Your task to perform on an android device: install app "Etsy: Buy & Sell Unique Items" Image 0: 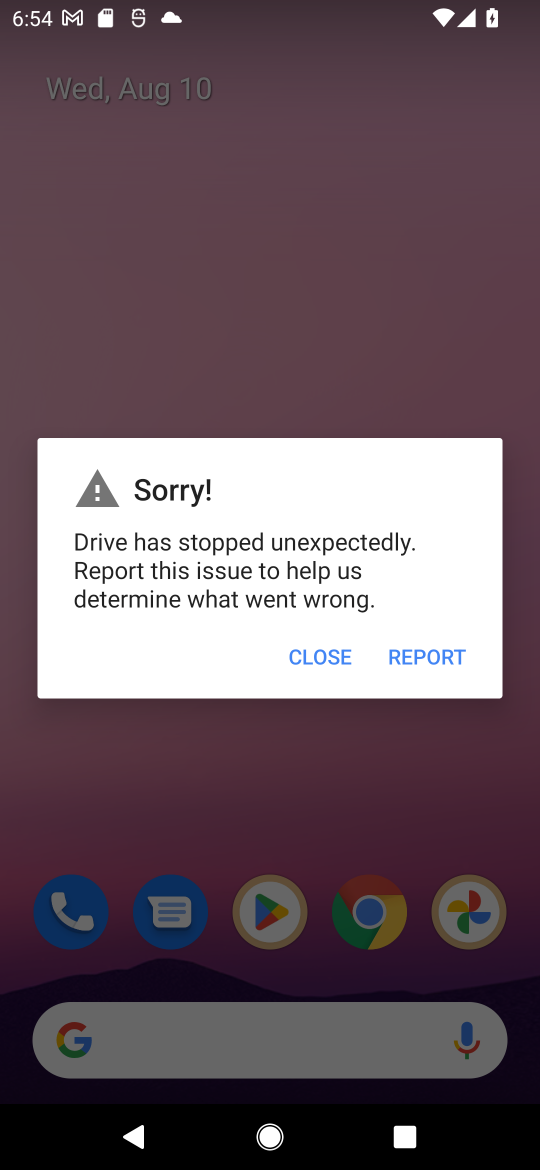
Step 0: press home button
Your task to perform on an android device: install app "Etsy: Buy & Sell Unique Items" Image 1: 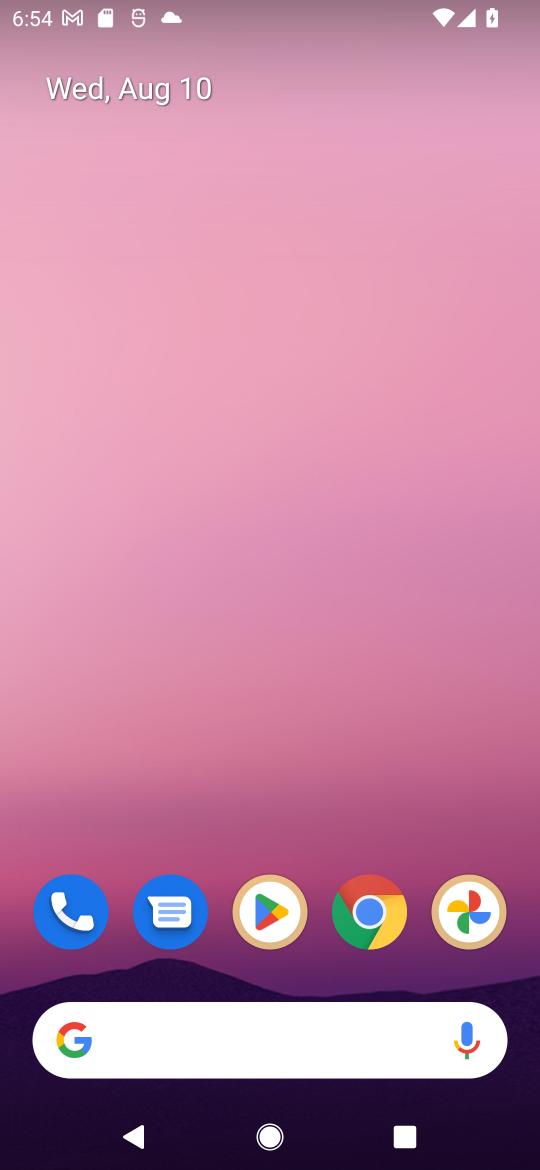
Step 1: drag from (505, 882) to (283, 53)
Your task to perform on an android device: install app "Etsy: Buy & Sell Unique Items" Image 2: 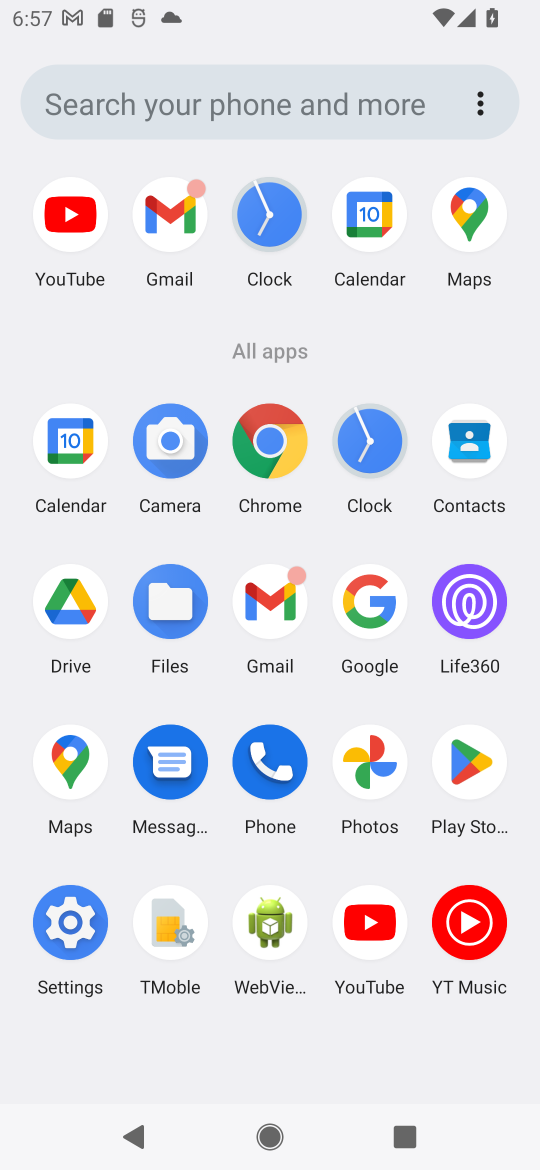
Step 2: click (466, 761)
Your task to perform on an android device: install app "Etsy: Buy & Sell Unique Items" Image 3: 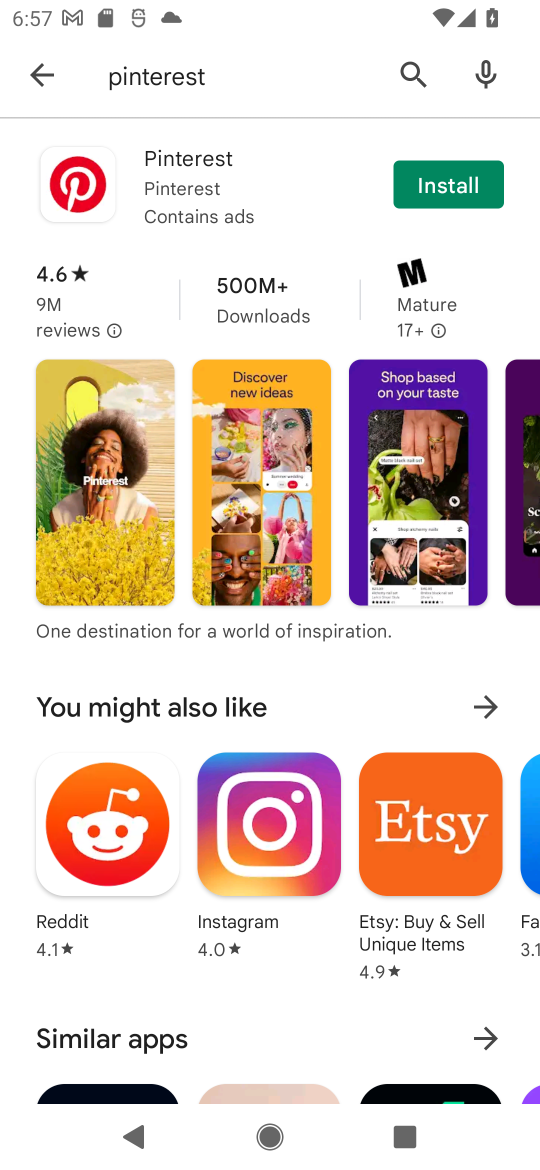
Step 3: press back button
Your task to perform on an android device: install app "Etsy: Buy & Sell Unique Items" Image 4: 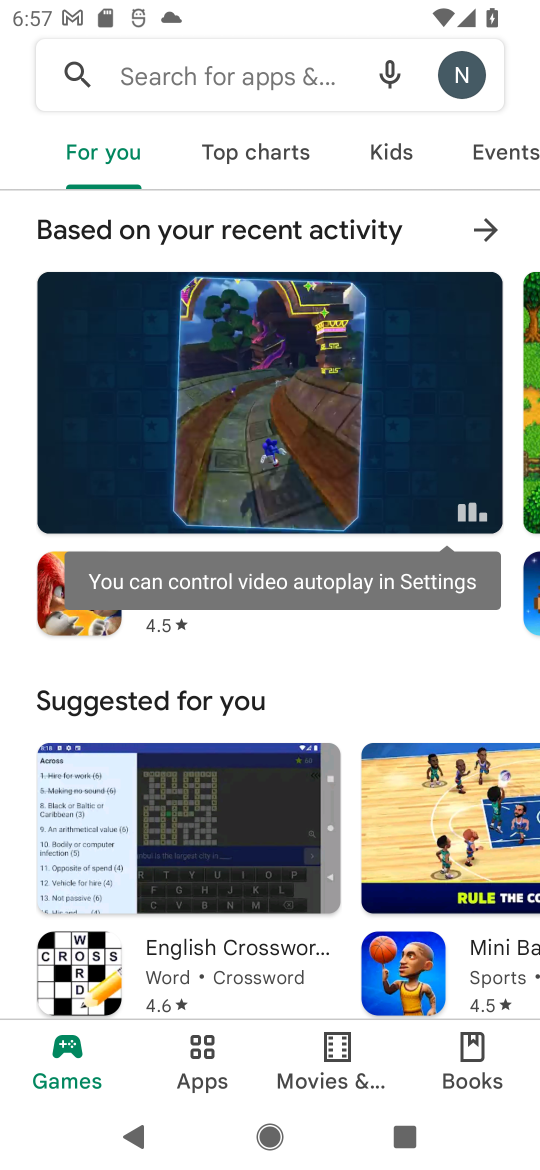
Step 4: click (180, 61)
Your task to perform on an android device: install app "Etsy: Buy & Sell Unique Items" Image 5: 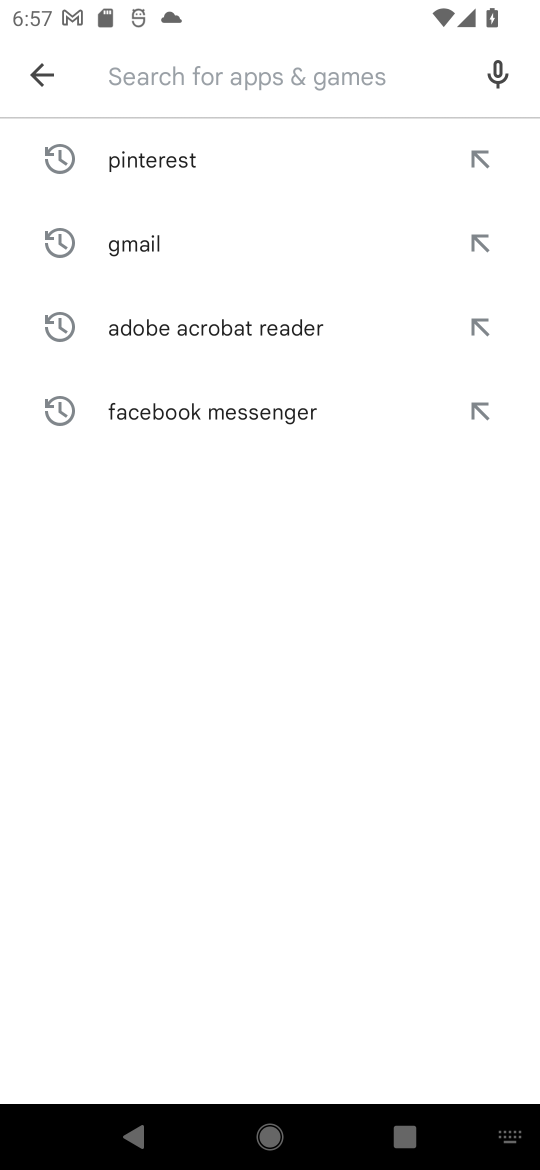
Step 5: type "Etsy: Buy & Sell Unique Items"
Your task to perform on an android device: install app "Etsy: Buy & Sell Unique Items" Image 6: 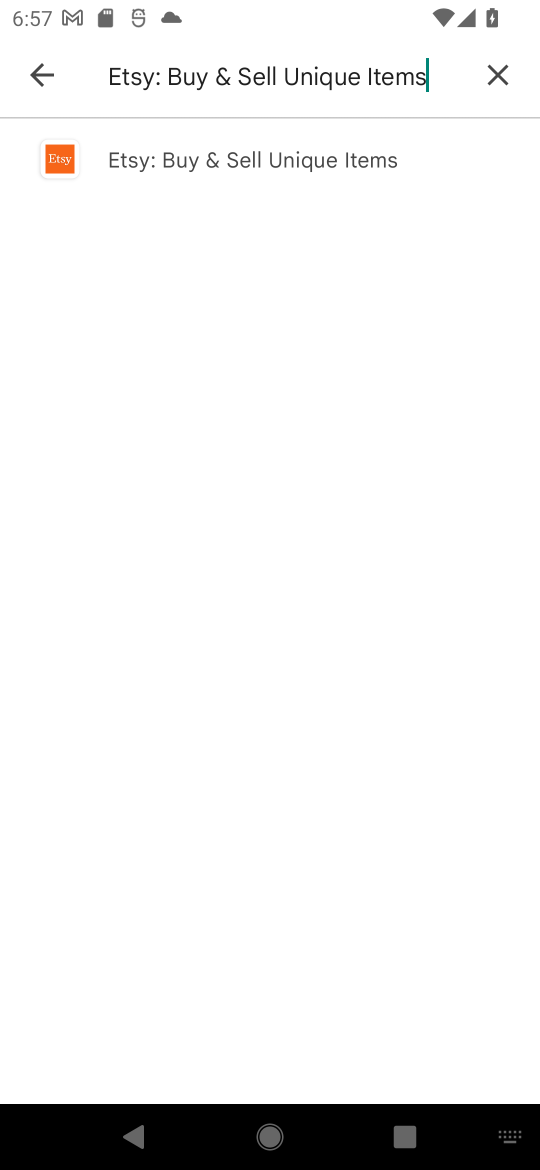
Step 6: click (205, 147)
Your task to perform on an android device: install app "Etsy: Buy & Sell Unique Items" Image 7: 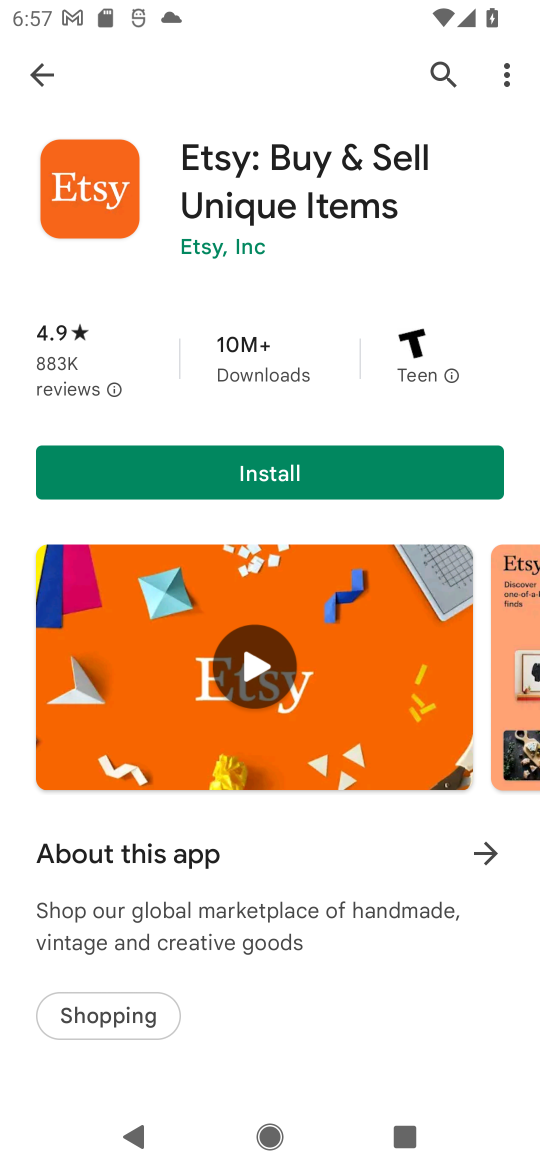
Step 7: click (277, 483)
Your task to perform on an android device: install app "Etsy: Buy & Sell Unique Items" Image 8: 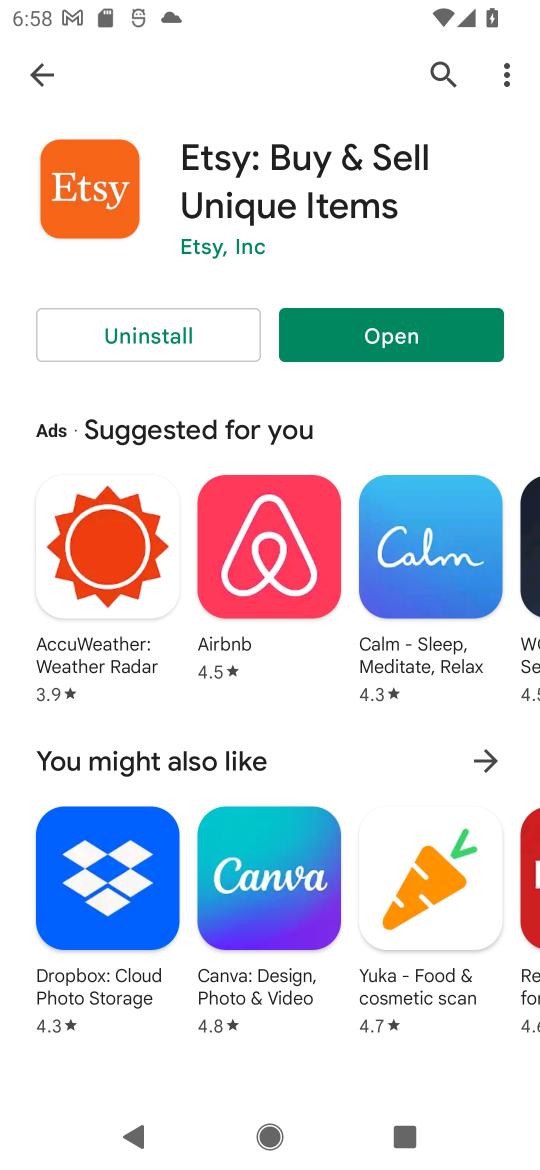
Step 8: task complete